Your task to perform on an android device: Open Amazon Image 0: 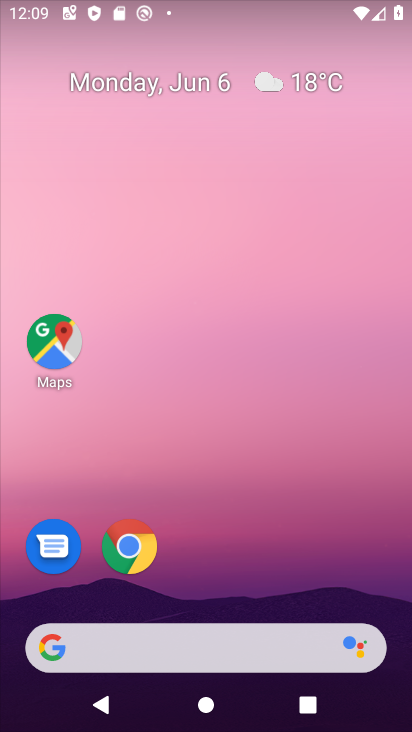
Step 0: click (134, 559)
Your task to perform on an android device: Open Amazon Image 1: 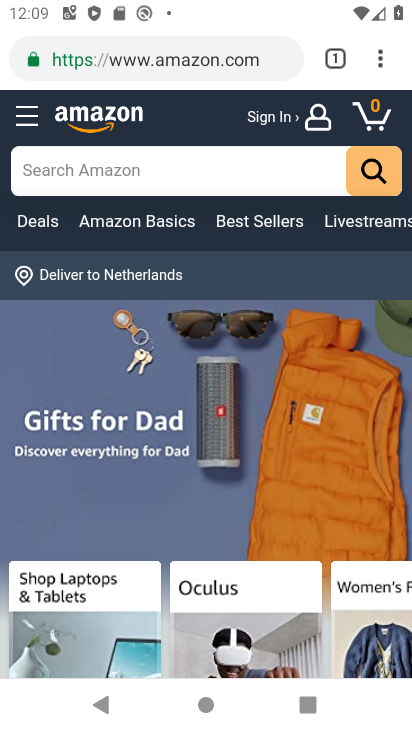
Step 1: task complete